Your task to perform on an android device: Set the phone to "Do not disturb". Image 0: 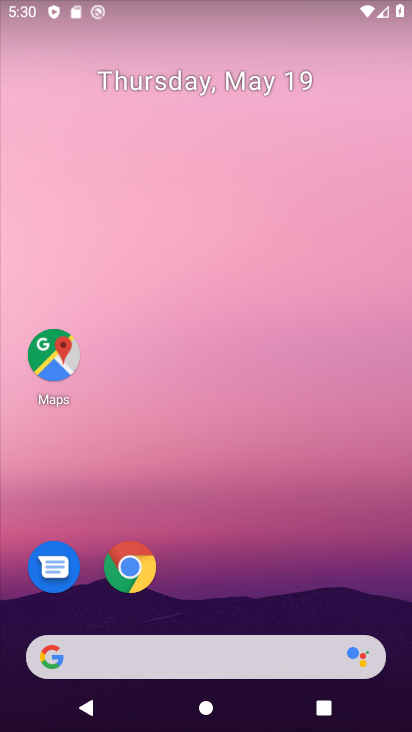
Step 0: drag from (247, 681) to (197, 51)
Your task to perform on an android device: Set the phone to "Do not disturb". Image 1: 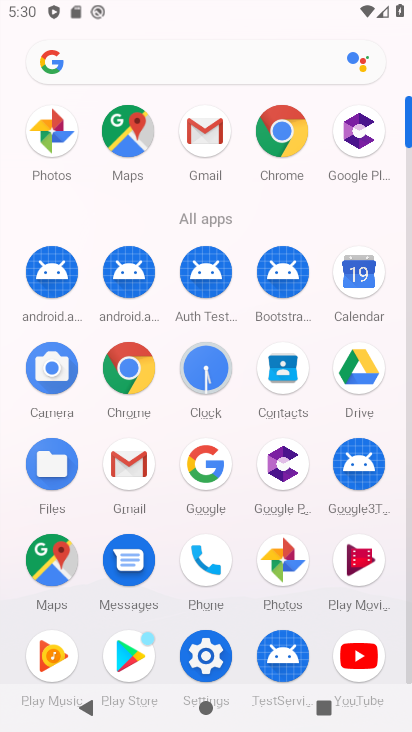
Step 1: click (199, 670)
Your task to perform on an android device: Set the phone to "Do not disturb". Image 2: 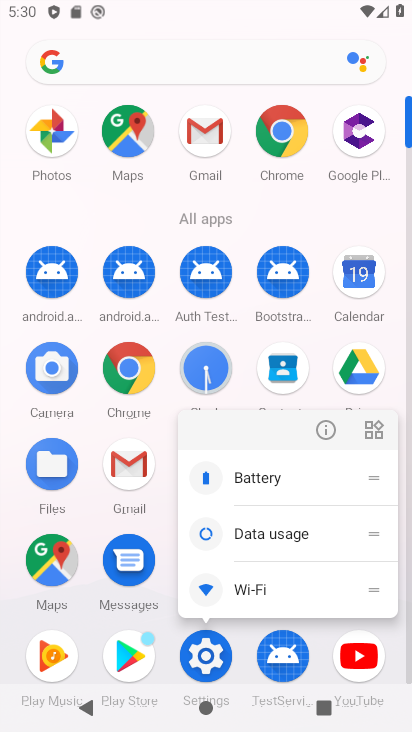
Step 2: click (212, 637)
Your task to perform on an android device: Set the phone to "Do not disturb". Image 3: 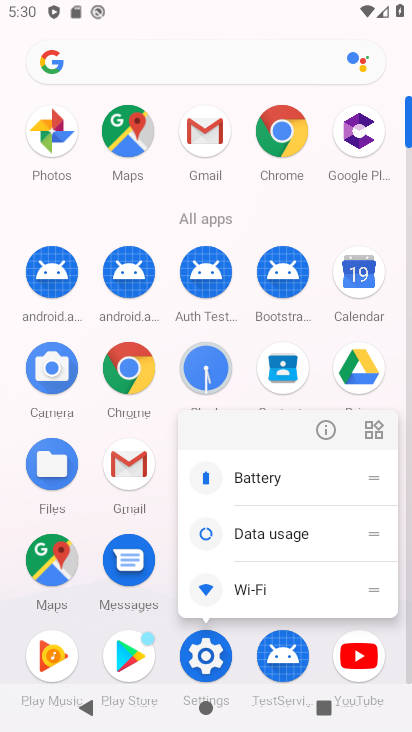
Step 3: click (203, 651)
Your task to perform on an android device: Set the phone to "Do not disturb". Image 4: 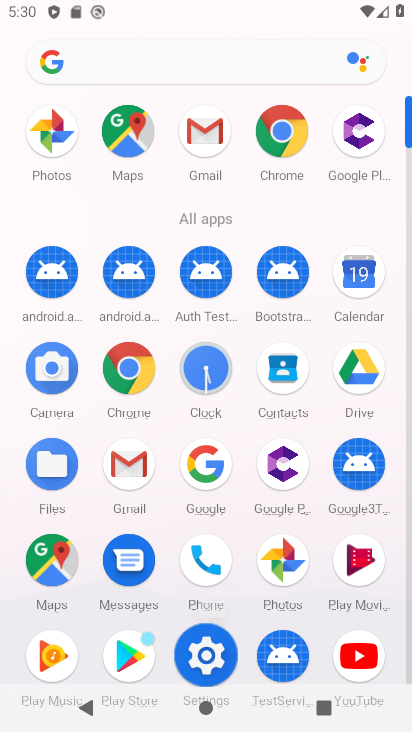
Step 4: click (203, 651)
Your task to perform on an android device: Set the phone to "Do not disturb". Image 5: 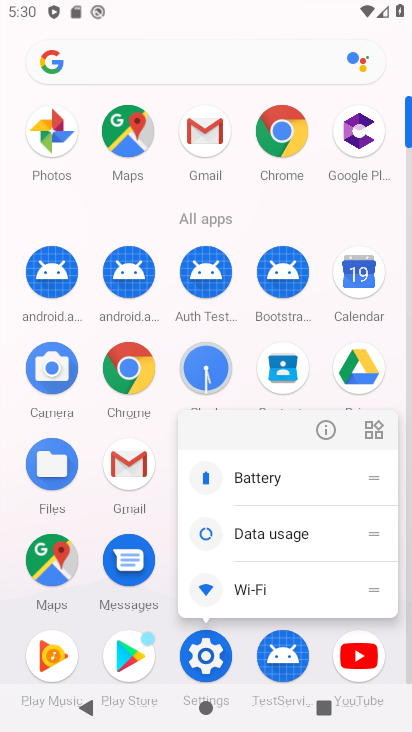
Step 5: click (202, 651)
Your task to perform on an android device: Set the phone to "Do not disturb". Image 6: 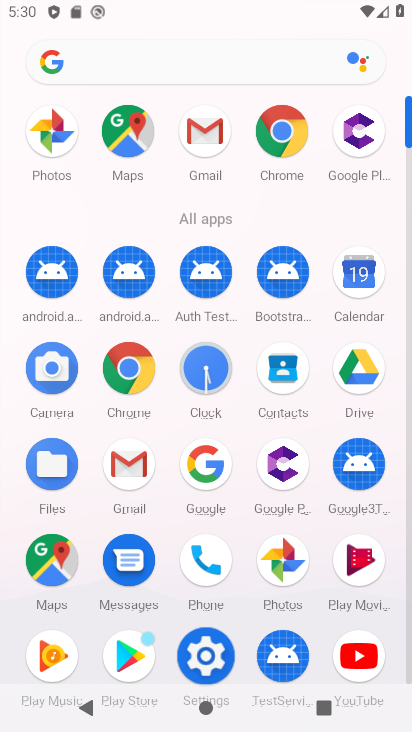
Step 6: click (202, 648)
Your task to perform on an android device: Set the phone to "Do not disturb". Image 7: 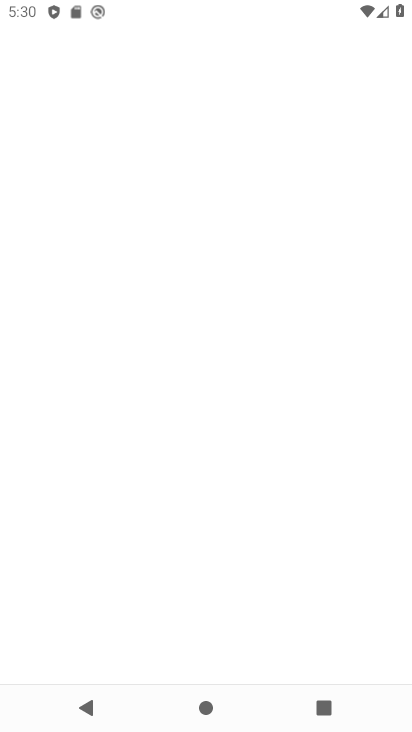
Step 7: click (202, 648)
Your task to perform on an android device: Set the phone to "Do not disturb". Image 8: 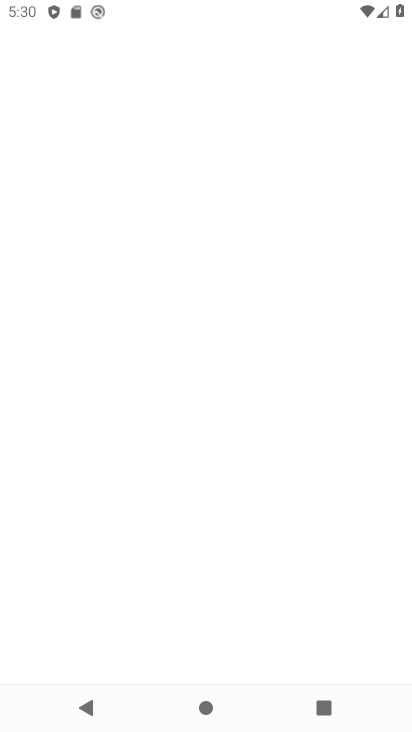
Step 8: click (202, 648)
Your task to perform on an android device: Set the phone to "Do not disturb". Image 9: 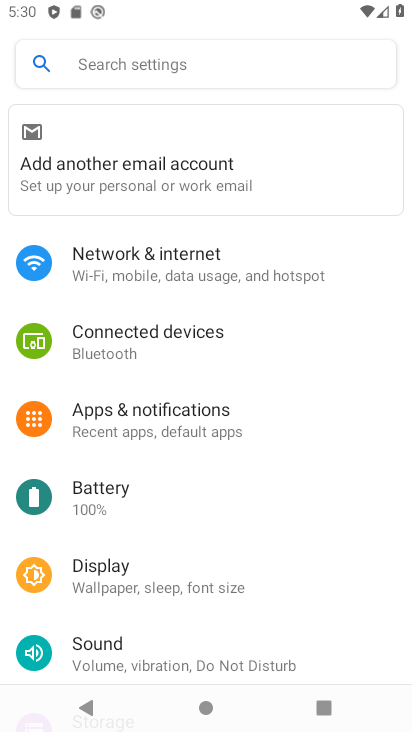
Step 9: click (106, 569)
Your task to perform on an android device: Set the phone to "Do not disturb". Image 10: 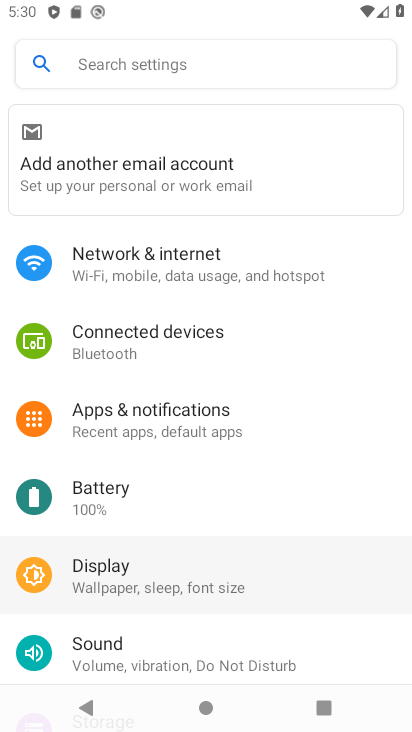
Step 10: click (105, 568)
Your task to perform on an android device: Set the phone to "Do not disturb". Image 11: 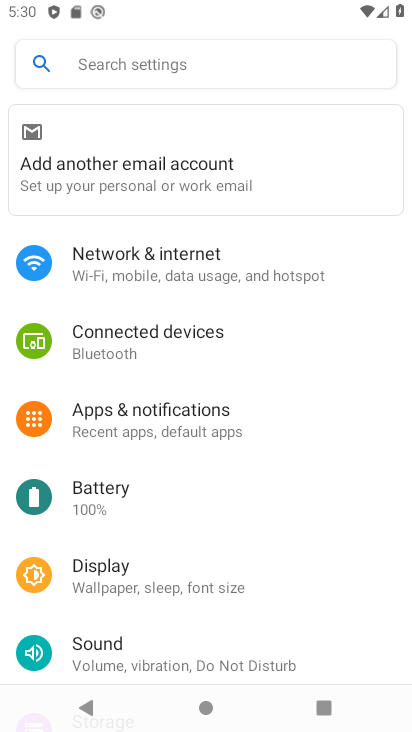
Step 11: click (105, 568)
Your task to perform on an android device: Set the phone to "Do not disturb". Image 12: 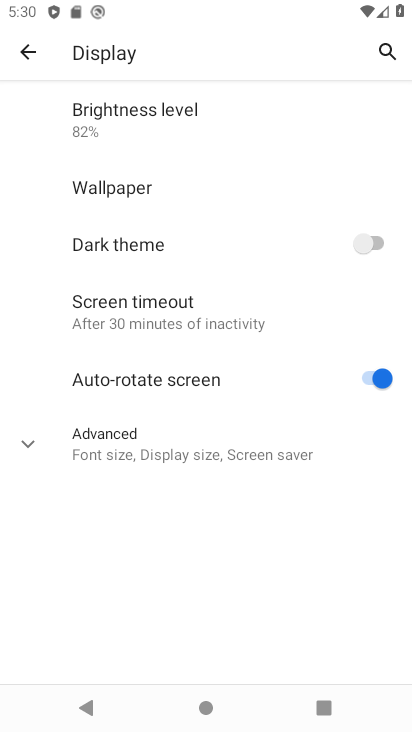
Step 12: click (32, 43)
Your task to perform on an android device: Set the phone to "Do not disturb". Image 13: 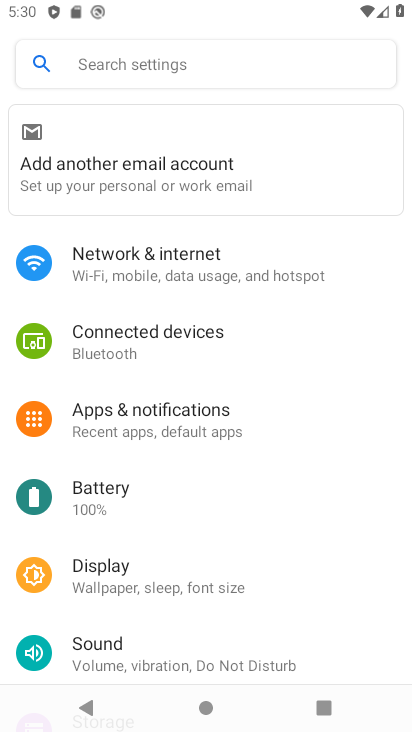
Step 13: drag from (202, 622) to (228, 185)
Your task to perform on an android device: Set the phone to "Do not disturb". Image 14: 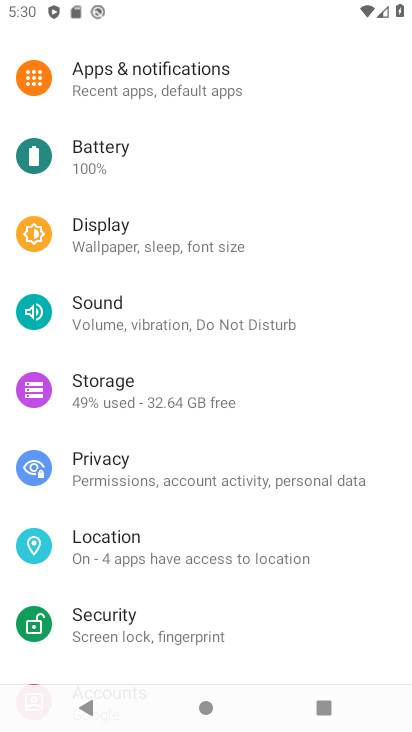
Step 14: click (102, 329)
Your task to perform on an android device: Set the phone to "Do not disturb". Image 15: 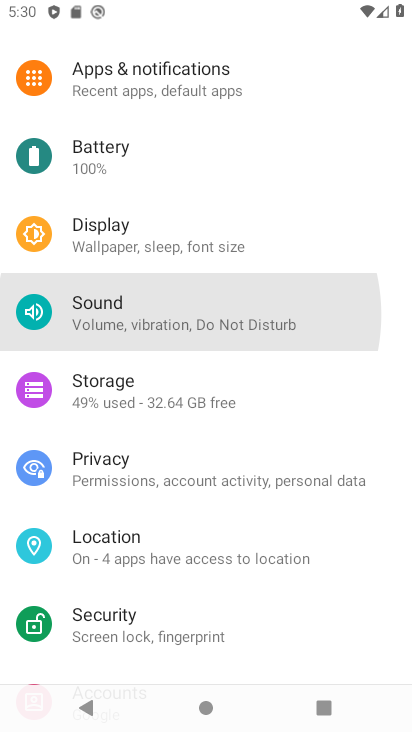
Step 15: click (102, 328)
Your task to perform on an android device: Set the phone to "Do not disturb". Image 16: 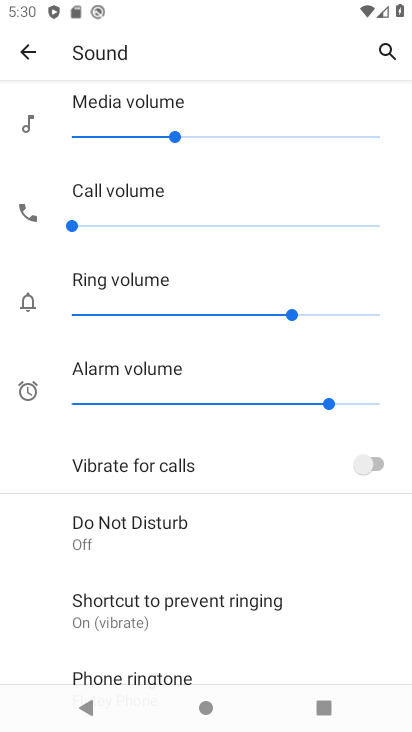
Step 16: task complete